Your task to perform on an android device: Find coffee shops on Maps Image 0: 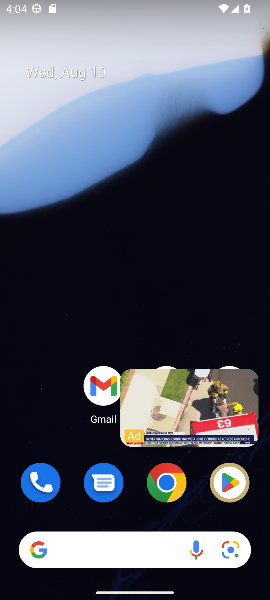
Step 0: click (239, 405)
Your task to perform on an android device: Find coffee shops on Maps Image 1: 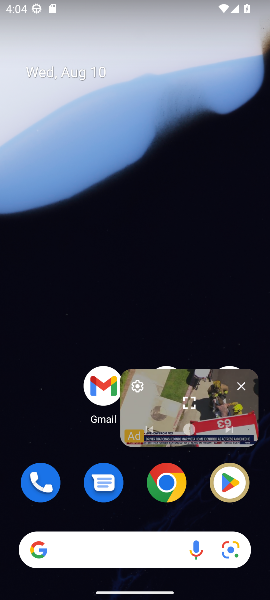
Step 1: click (238, 387)
Your task to perform on an android device: Find coffee shops on Maps Image 2: 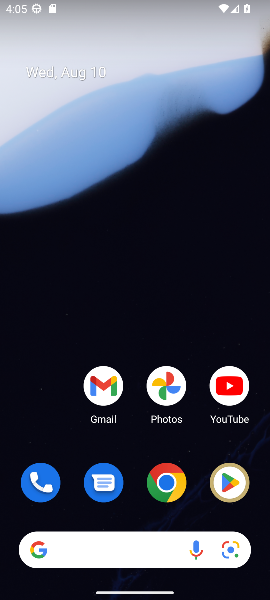
Step 2: drag from (50, 406) to (77, 30)
Your task to perform on an android device: Find coffee shops on Maps Image 3: 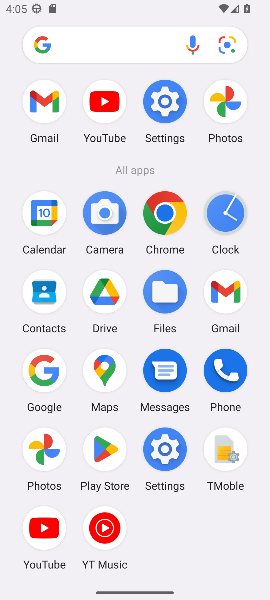
Step 3: click (105, 364)
Your task to perform on an android device: Find coffee shops on Maps Image 4: 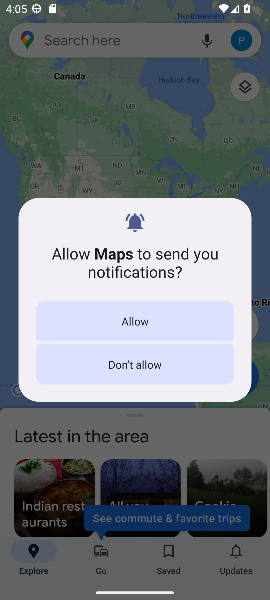
Step 4: click (181, 357)
Your task to perform on an android device: Find coffee shops on Maps Image 5: 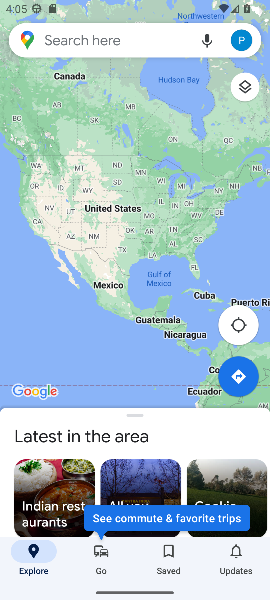
Step 5: click (153, 41)
Your task to perform on an android device: Find coffee shops on Maps Image 6: 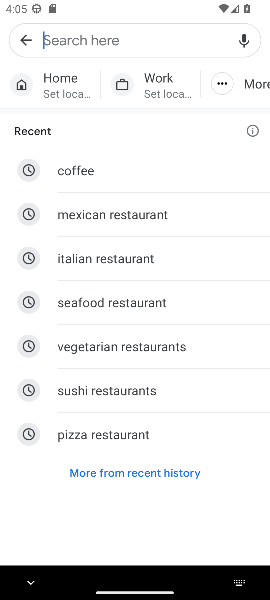
Step 6: click (71, 165)
Your task to perform on an android device: Find coffee shops on Maps Image 7: 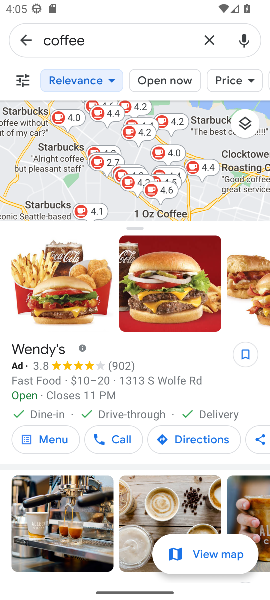
Step 7: task complete